Your task to perform on an android device: stop showing notifications on the lock screen Image 0: 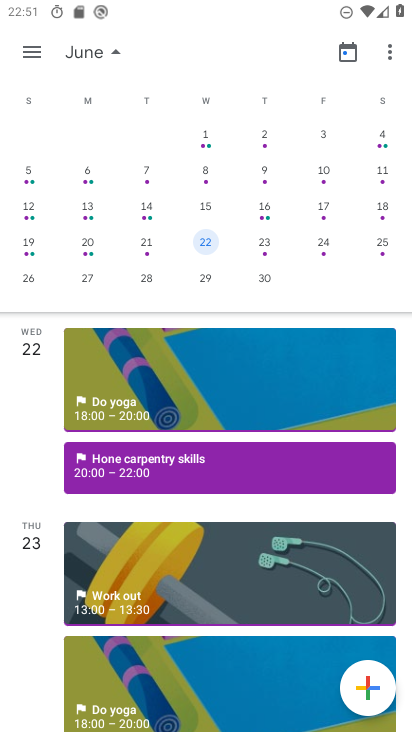
Step 0: press home button
Your task to perform on an android device: stop showing notifications on the lock screen Image 1: 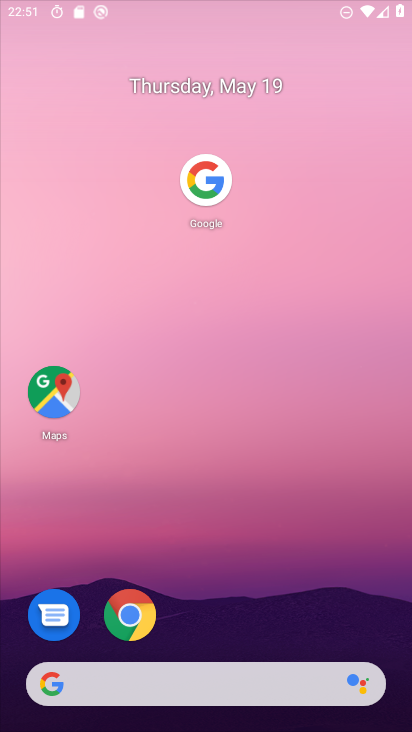
Step 1: drag from (253, 583) to (284, 102)
Your task to perform on an android device: stop showing notifications on the lock screen Image 2: 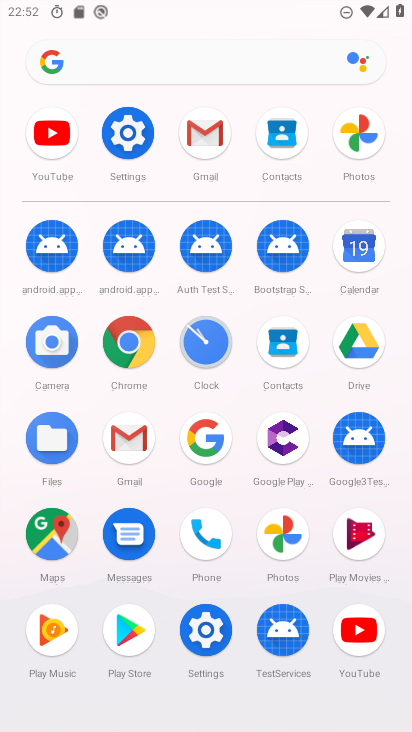
Step 2: click (212, 621)
Your task to perform on an android device: stop showing notifications on the lock screen Image 3: 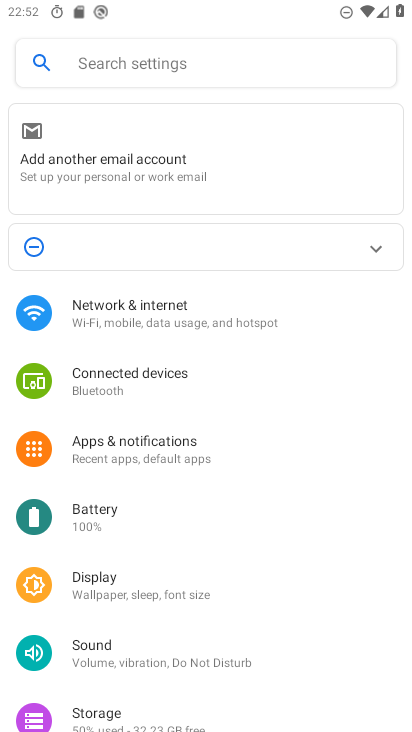
Step 3: click (171, 449)
Your task to perform on an android device: stop showing notifications on the lock screen Image 4: 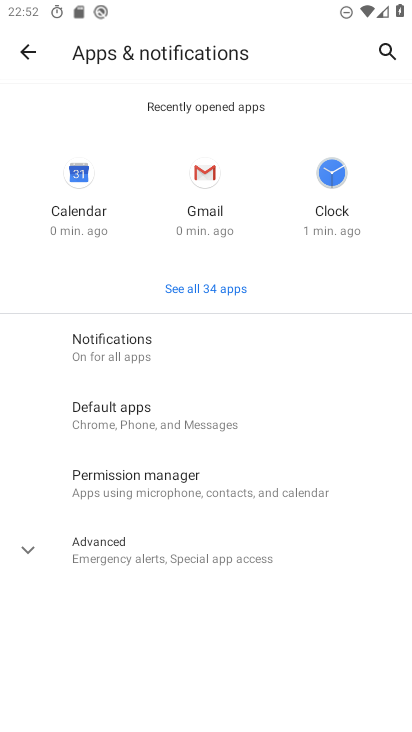
Step 4: click (152, 358)
Your task to perform on an android device: stop showing notifications on the lock screen Image 5: 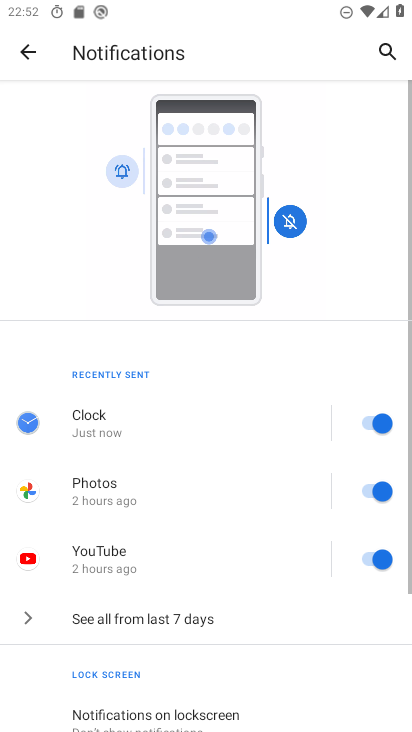
Step 5: drag from (223, 597) to (221, 246)
Your task to perform on an android device: stop showing notifications on the lock screen Image 6: 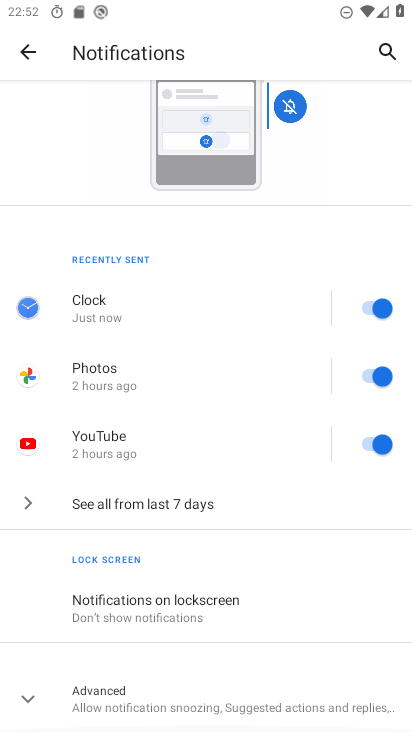
Step 6: click (154, 600)
Your task to perform on an android device: stop showing notifications on the lock screen Image 7: 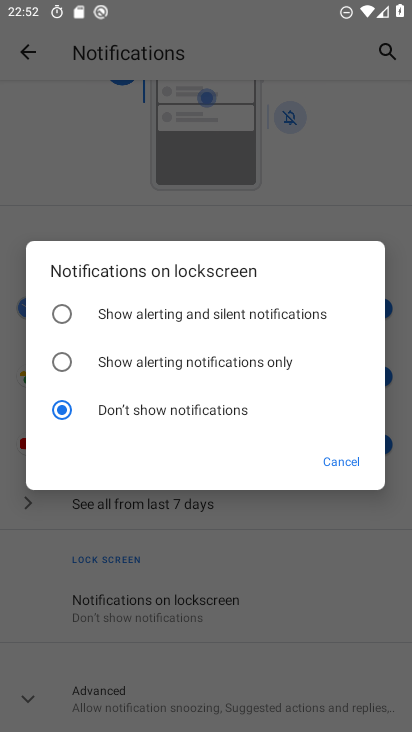
Step 7: task complete